Your task to perform on an android device: Open privacy settings Image 0: 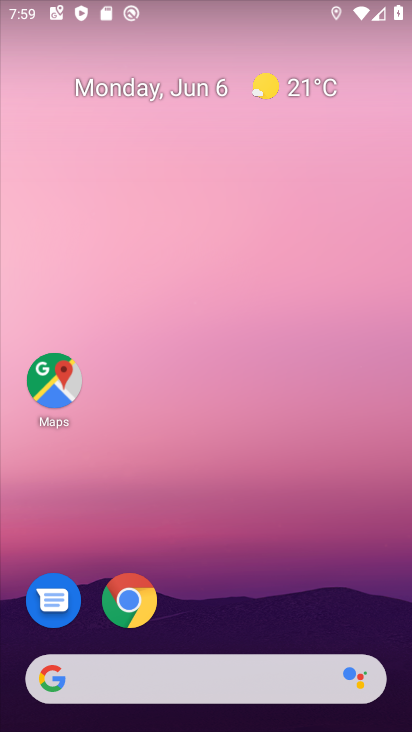
Step 0: drag from (366, 615) to (328, 44)
Your task to perform on an android device: Open privacy settings Image 1: 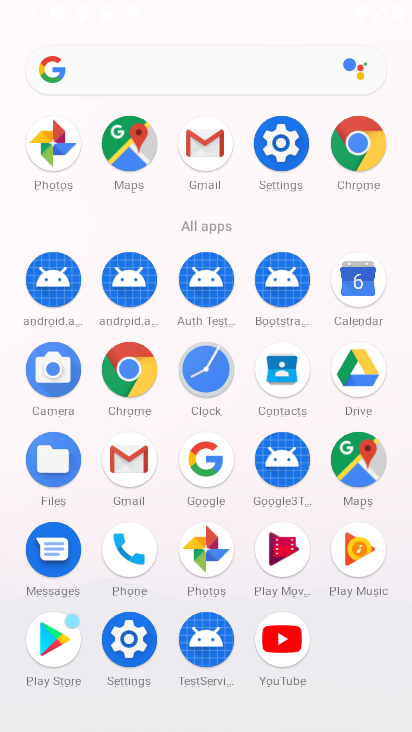
Step 1: click (127, 638)
Your task to perform on an android device: Open privacy settings Image 2: 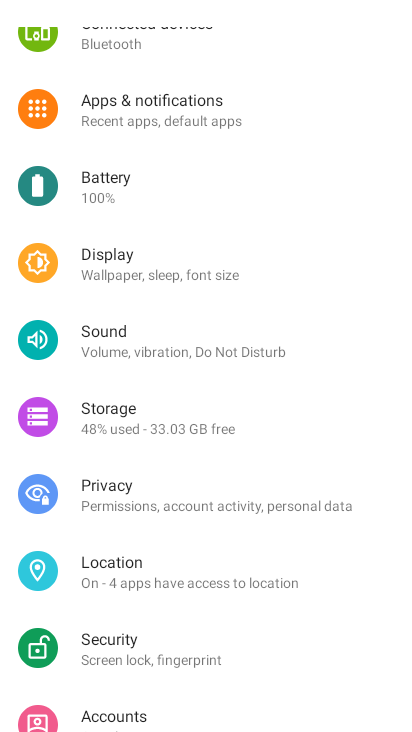
Step 2: click (115, 472)
Your task to perform on an android device: Open privacy settings Image 3: 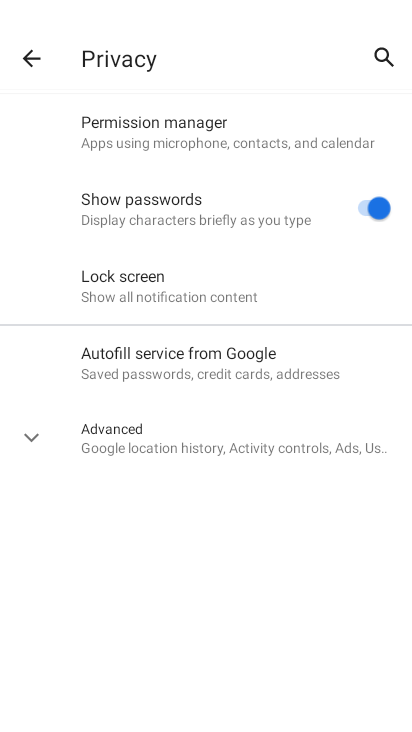
Step 3: click (19, 439)
Your task to perform on an android device: Open privacy settings Image 4: 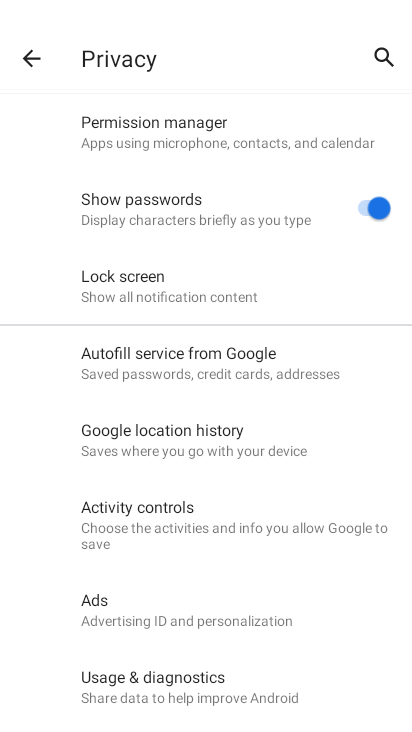
Step 4: task complete